Your task to perform on an android device: What's on my calendar tomorrow? Image 0: 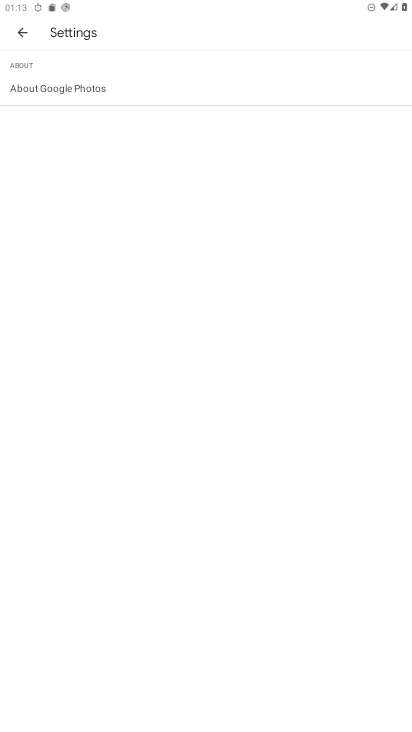
Step 0: press home button
Your task to perform on an android device: What's on my calendar tomorrow? Image 1: 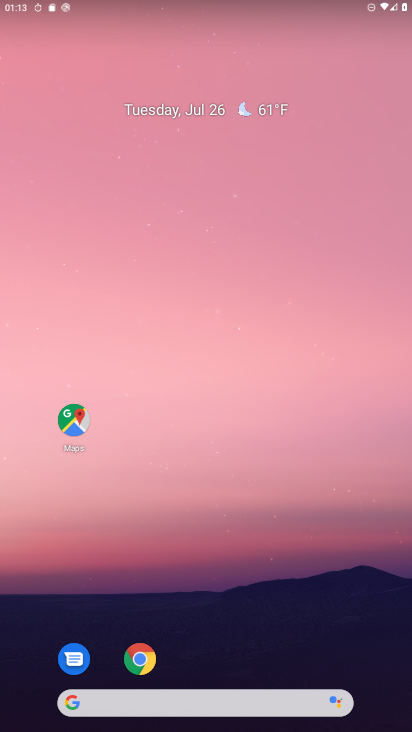
Step 1: drag from (43, 693) to (333, 5)
Your task to perform on an android device: What's on my calendar tomorrow? Image 2: 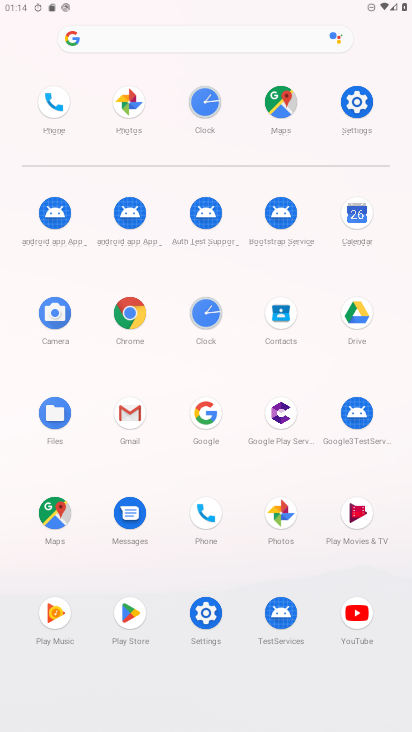
Step 2: click (357, 218)
Your task to perform on an android device: What's on my calendar tomorrow? Image 3: 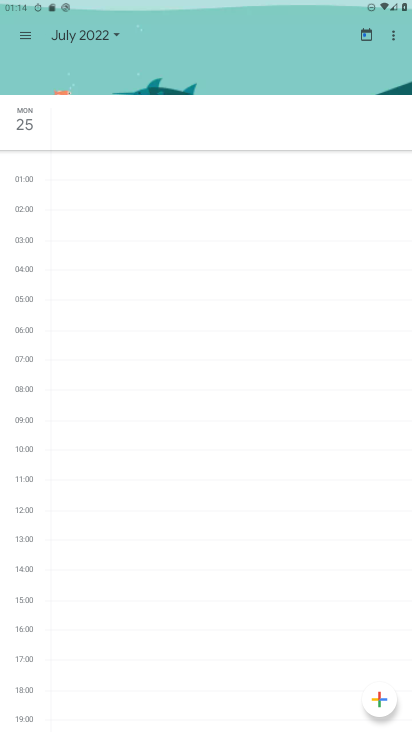
Step 3: click (100, 45)
Your task to perform on an android device: What's on my calendar tomorrow? Image 4: 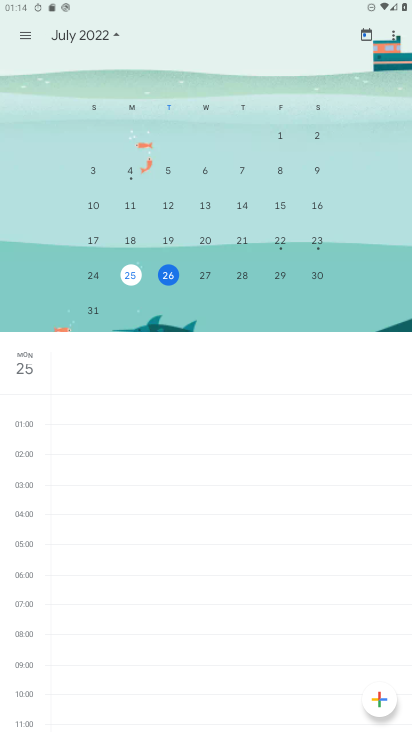
Step 4: click (26, 25)
Your task to perform on an android device: What's on my calendar tomorrow? Image 5: 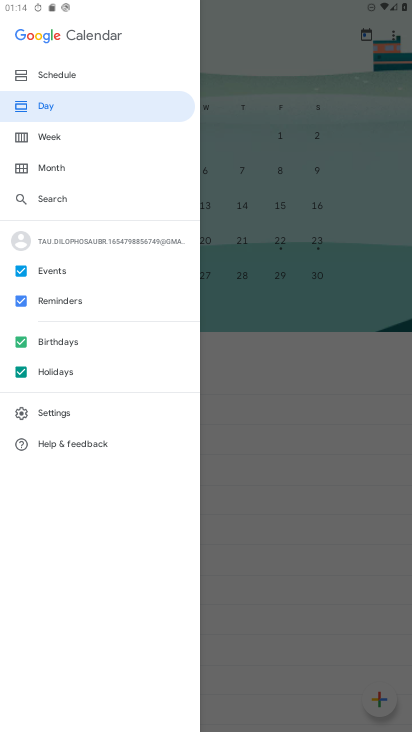
Step 5: task complete